Your task to perform on an android device: Look up the best rated gaming chair on Best Buy Image 0: 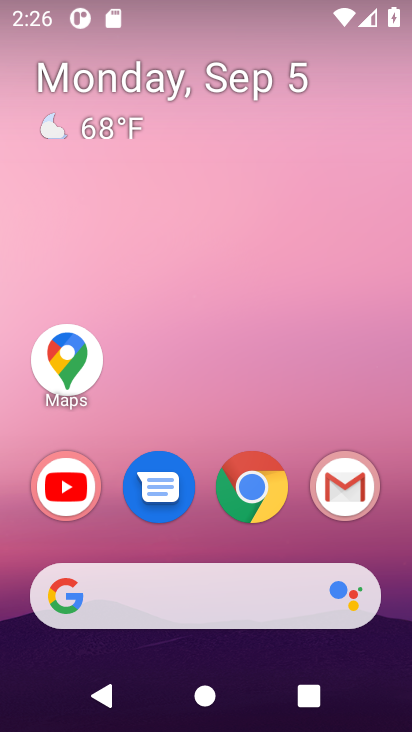
Step 0: click (254, 465)
Your task to perform on an android device: Look up the best rated gaming chair on Best Buy Image 1: 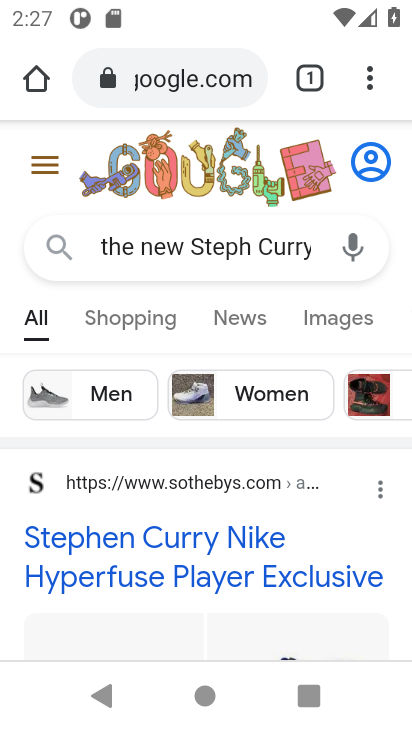
Step 1: click (186, 85)
Your task to perform on an android device: Look up the best rated gaming chair on Best Buy Image 2: 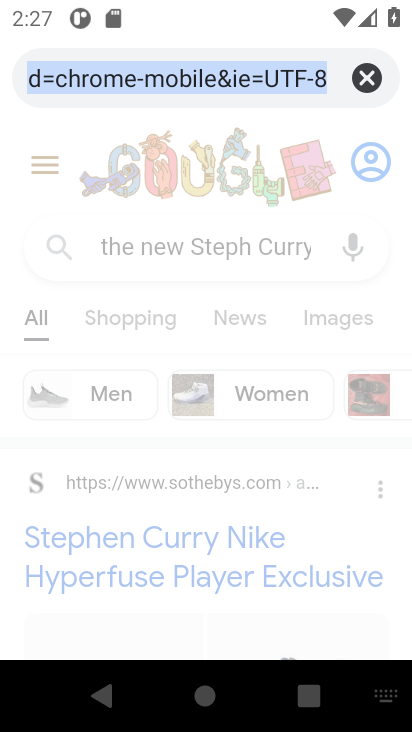
Step 2: click (356, 73)
Your task to perform on an android device: Look up the best rated gaming chair on Best Buy Image 3: 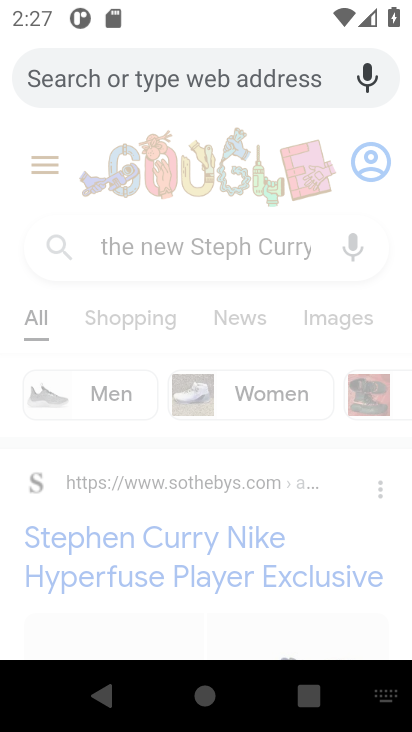
Step 3: type "the best rated gaming chair on Best Buy"
Your task to perform on an android device: Look up the best rated gaming chair on Best Buy Image 4: 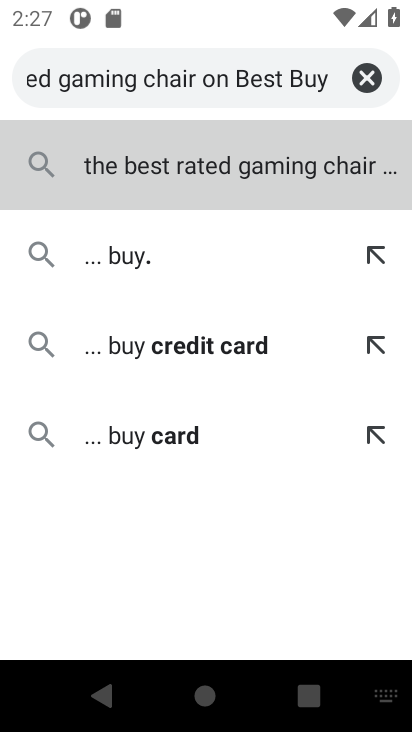
Step 4: click (285, 167)
Your task to perform on an android device: Look up the best rated gaming chair on Best Buy Image 5: 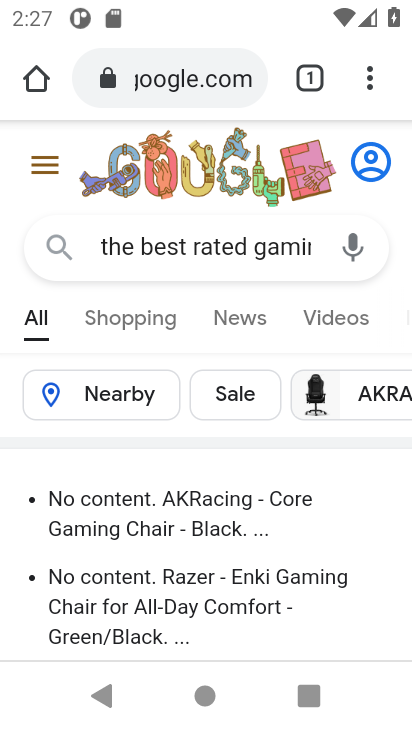
Step 5: task complete